Your task to perform on an android device: Check the news Image 0: 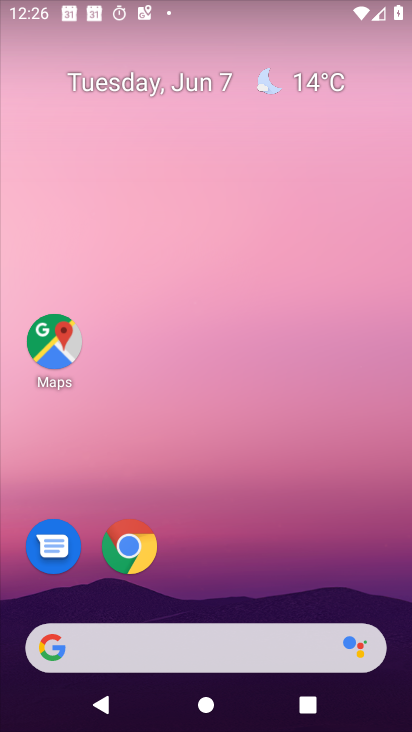
Step 0: click (150, 634)
Your task to perform on an android device: Check the news Image 1: 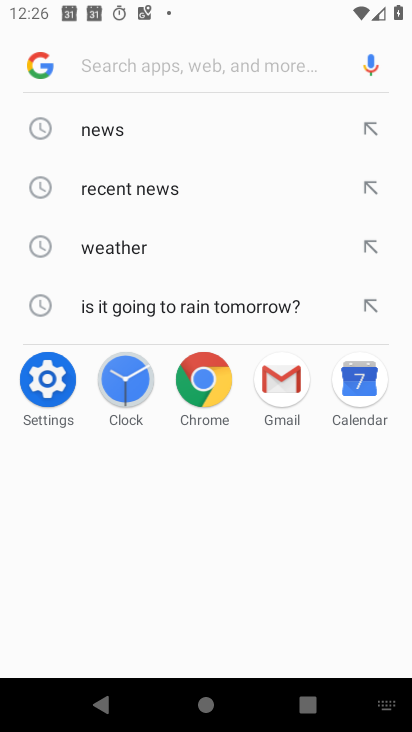
Step 1: type "news"
Your task to perform on an android device: Check the news Image 2: 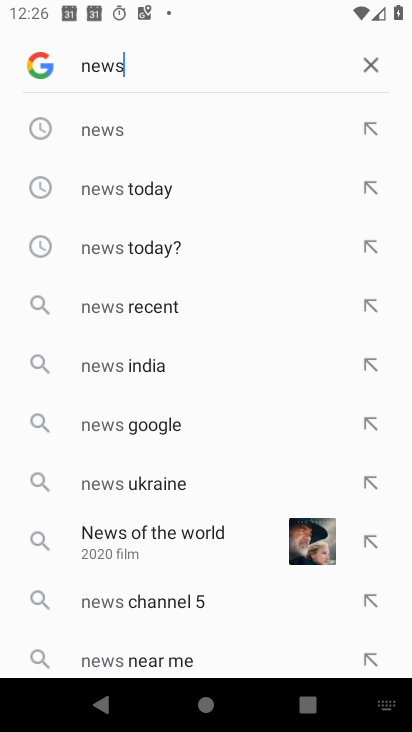
Step 2: click (203, 143)
Your task to perform on an android device: Check the news Image 3: 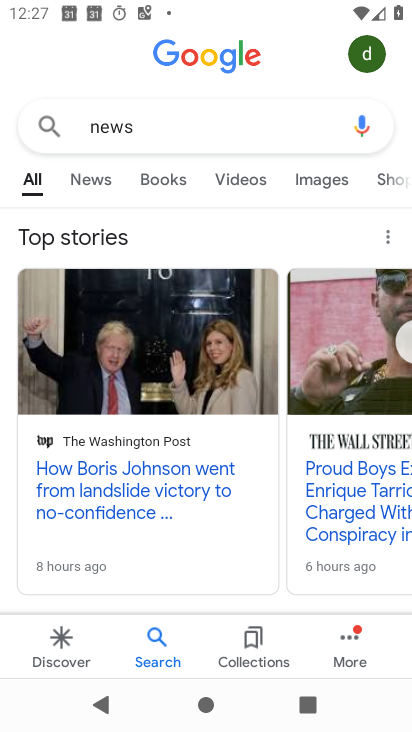
Step 3: task complete